Your task to perform on an android device: Go to Reddit.com Image 0: 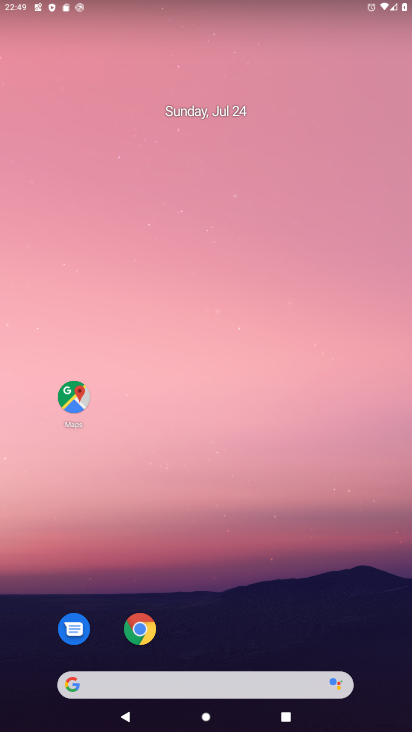
Step 0: drag from (212, 633) to (289, 221)
Your task to perform on an android device: Go to Reddit.com Image 1: 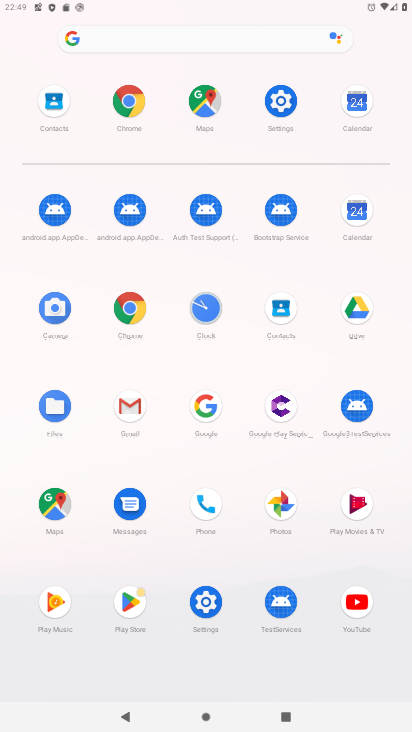
Step 1: click (207, 41)
Your task to perform on an android device: Go to Reddit.com Image 2: 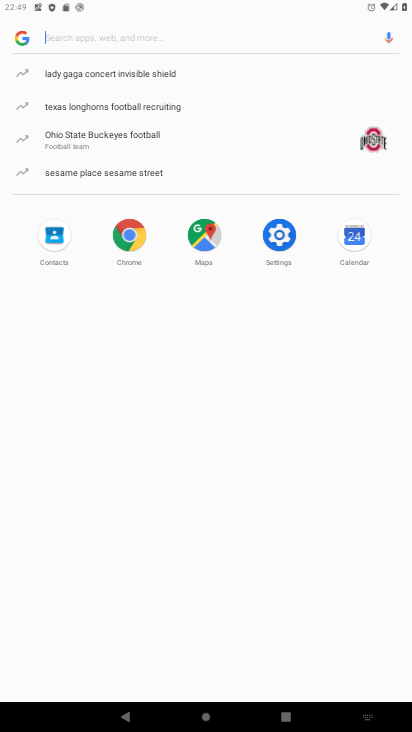
Step 2: type "Reddit.com"
Your task to perform on an android device: Go to Reddit.com Image 3: 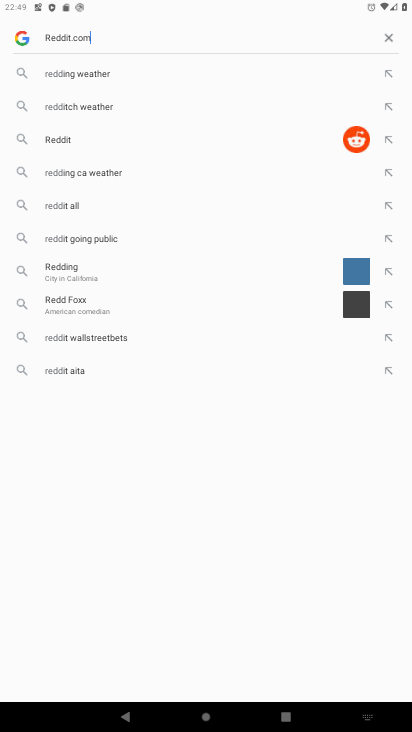
Step 3: type ""
Your task to perform on an android device: Go to Reddit.com Image 4: 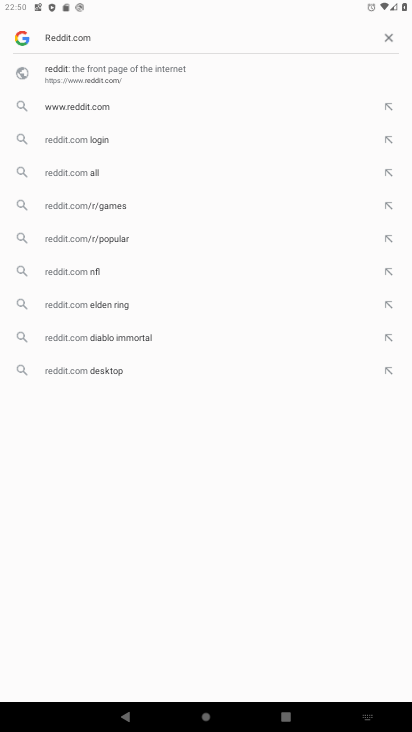
Step 4: click (105, 75)
Your task to perform on an android device: Go to Reddit.com Image 5: 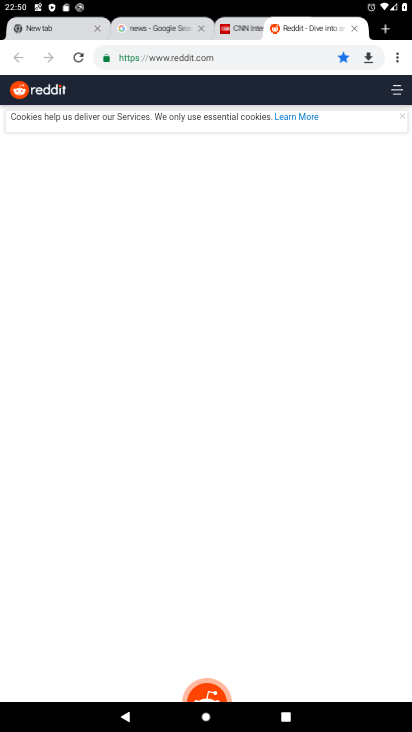
Step 5: task complete